Your task to perform on an android device: turn off smart reply in the gmail app Image 0: 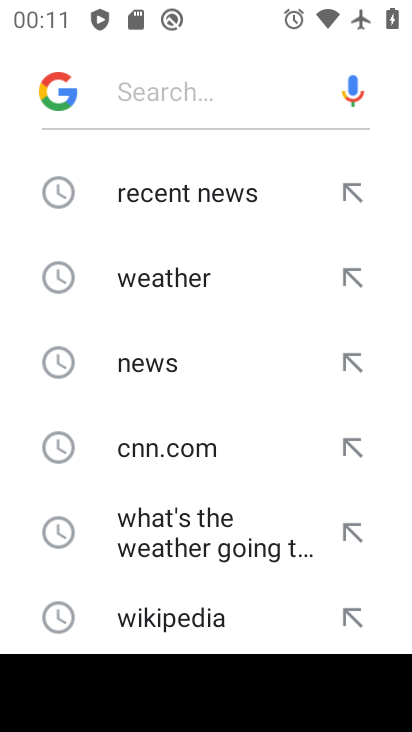
Step 0: press home button
Your task to perform on an android device: turn off smart reply in the gmail app Image 1: 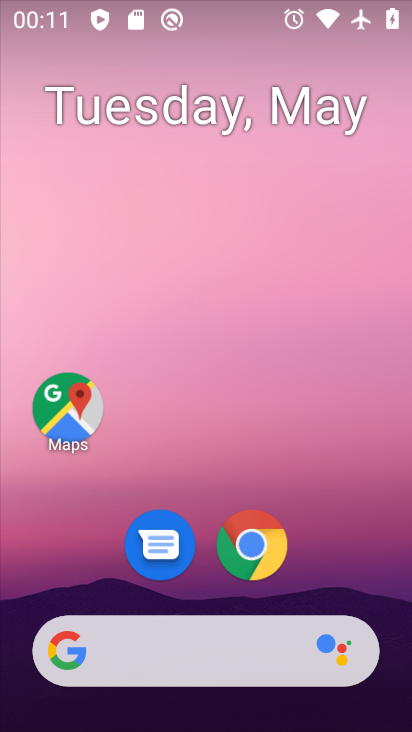
Step 1: drag from (330, 584) to (320, 91)
Your task to perform on an android device: turn off smart reply in the gmail app Image 2: 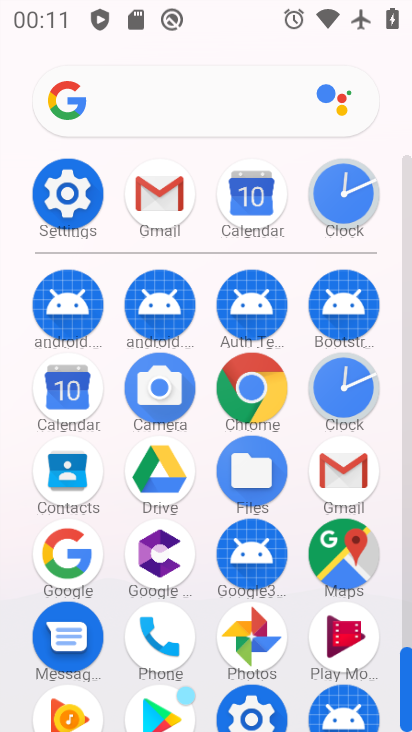
Step 2: click (334, 481)
Your task to perform on an android device: turn off smart reply in the gmail app Image 3: 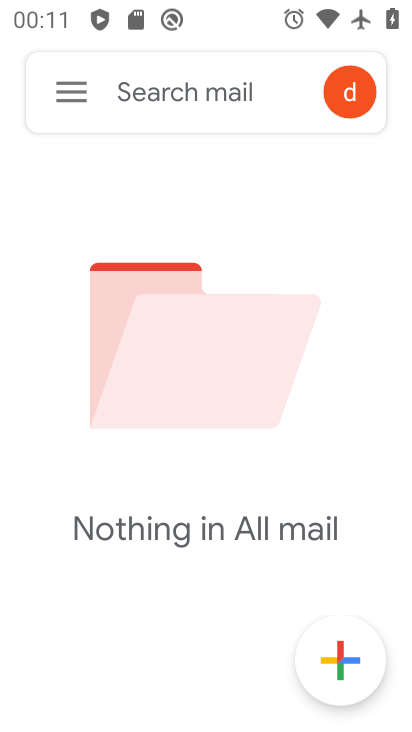
Step 3: click (71, 97)
Your task to perform on an android device: turn off smart reply in the gmail app Image 4: 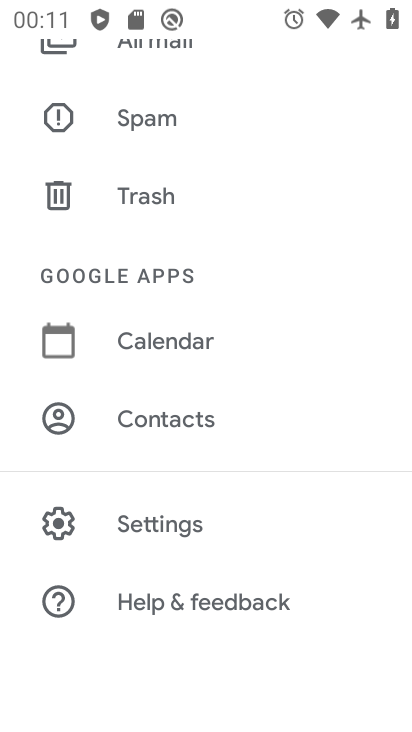
Step 4: click (182, 513)
Your task to perform on an android device: turn off smart reply in the gmail app Image 5: 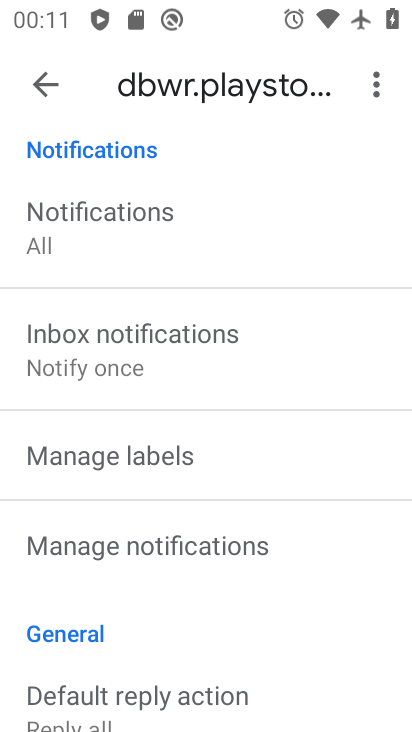
Step 5: drag from (200, 638) to (178, 545)
Your task to perform on an android device: turn off smart reply in the gmail app Image 6: 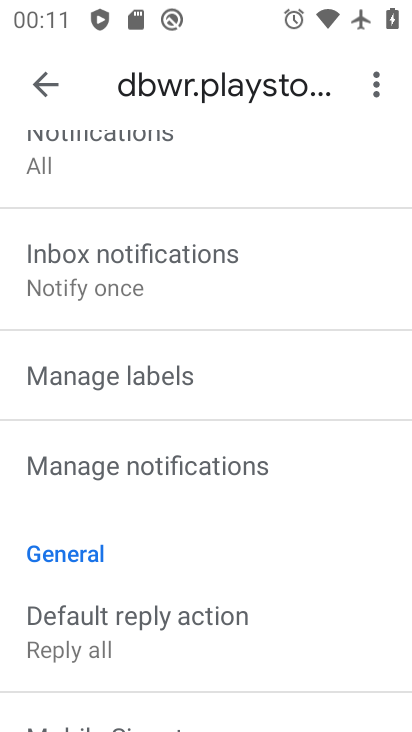
Step 6: drag from (148, 660) to (131, 559)
Your task to perform on an android device: turn off smart reply in the gmail app Image 7: 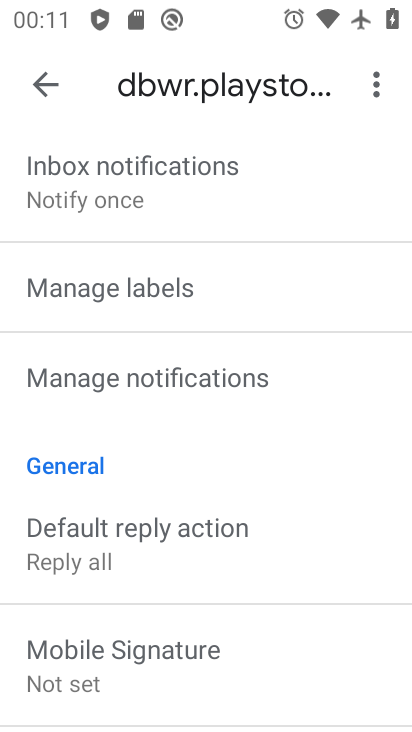
Step 7: drag from (124, 684) to (101, 589)
Your task to perform on an android device: turn off smart reply in the gmail app Image 8: 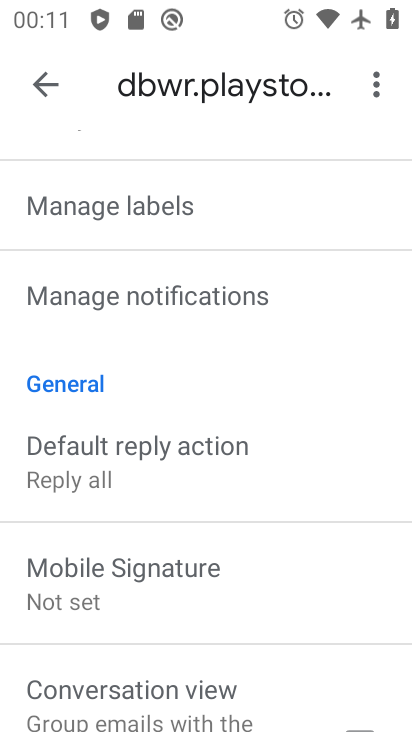
Step 8: drag from (127, 677) to (121, 591)
Your task to perform on an android device: turn off smart reply in the gmail app Image 9: 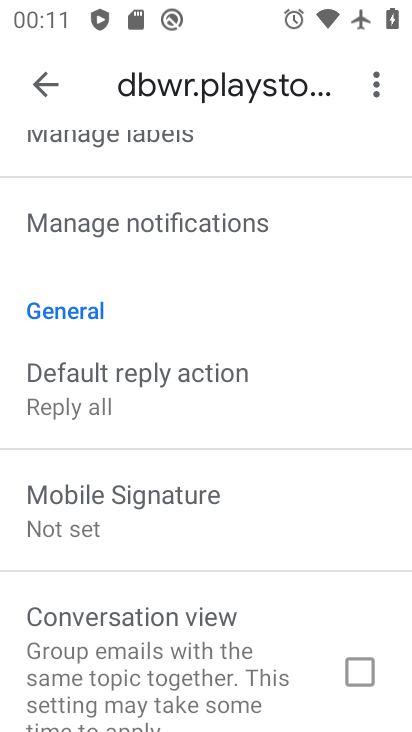
Step 9: drag from (149, 672) to (134, 589)
Your task to perform on an android device: turn off smart reply in the gmail app Image 10: 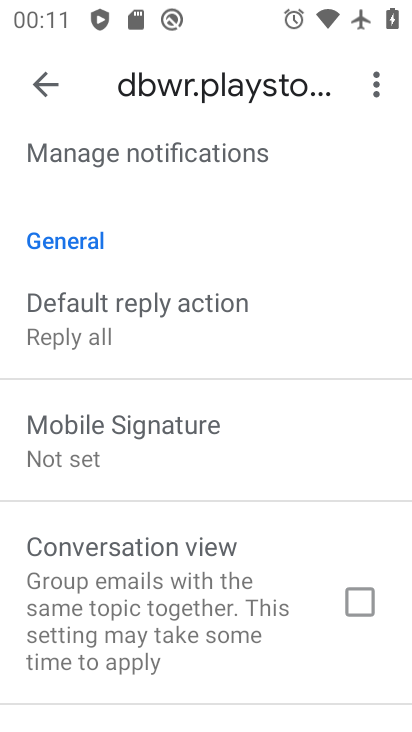
Step 10: drag from (140, 669) to (114, 577)
Your task to perform on an android device: turn off smart reply in the gmail app Image 11: 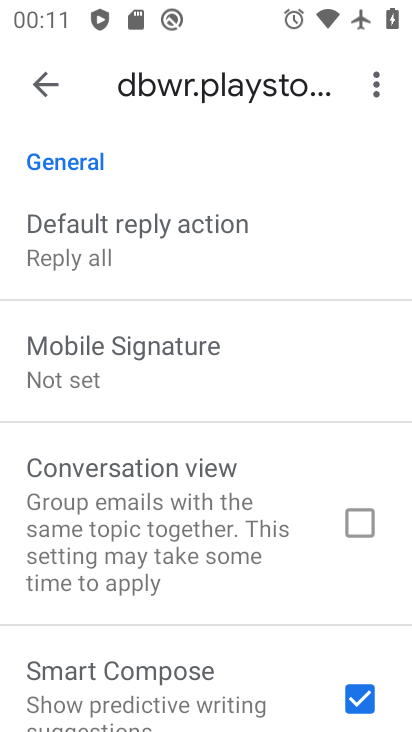
Step 11: drag from (136, 656) to (123, 556)
Your task to perform on an android device: turn off smart reply in the gmail app Image 12: 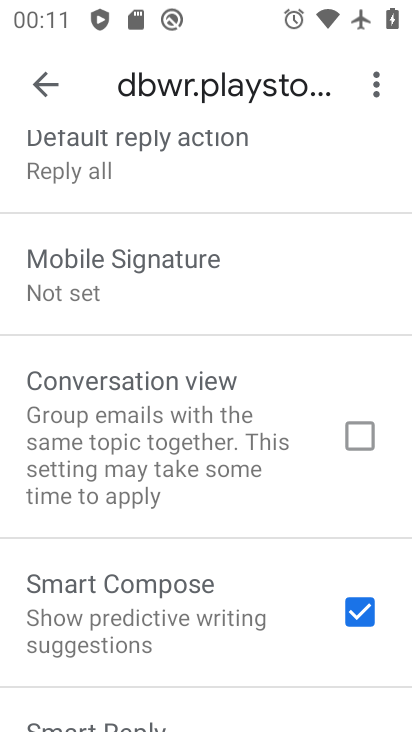
Step 12: drag from (130, 627) to (125, 549)
Your task to perform on an android device: turn off smart reply in the gmail app Image 13: 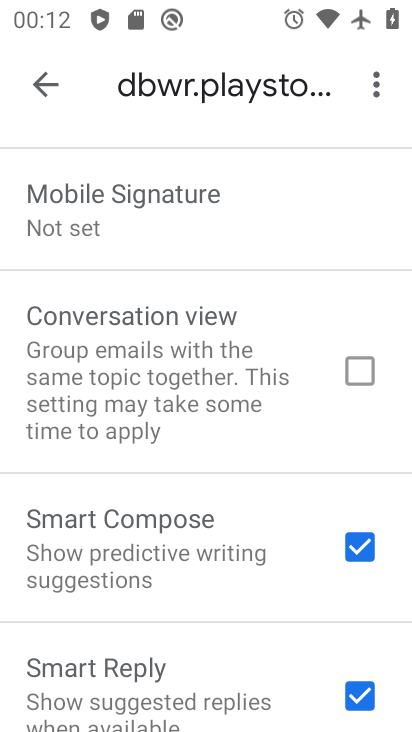
Step 13: drag from (144, 618) to (128, 549)
Your task to perform on an android device: turn off smart reply in the gmail app Image 14: 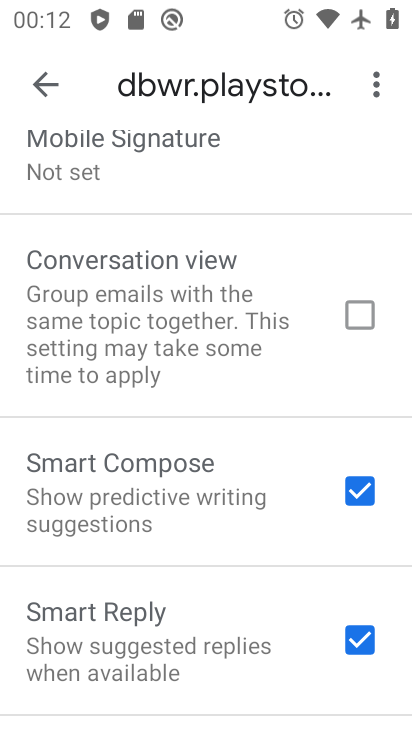
Step 14: click (368, 633)
Your task to perform on an android device: turn off smart reply in the gmail app Image 15: 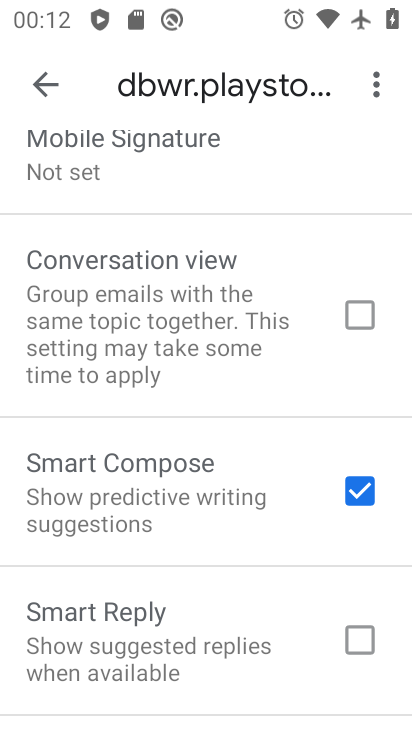
Step 15: task complete